Your task to perform on an android device: change text size in settings app Image 0: 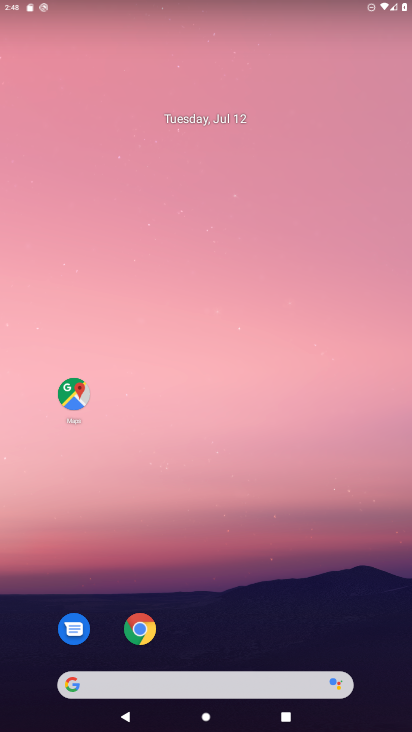
Step 0: drag from (197, 676) to (273, 124)
Your task to perform on an android device: change text size in settings app Image 1: 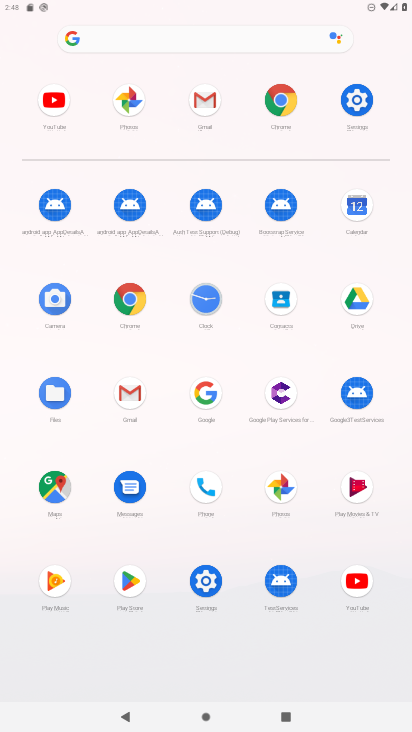
Step 1: click (357, 101)
Your task to perform on an android device: change text size in settings app Image 2: 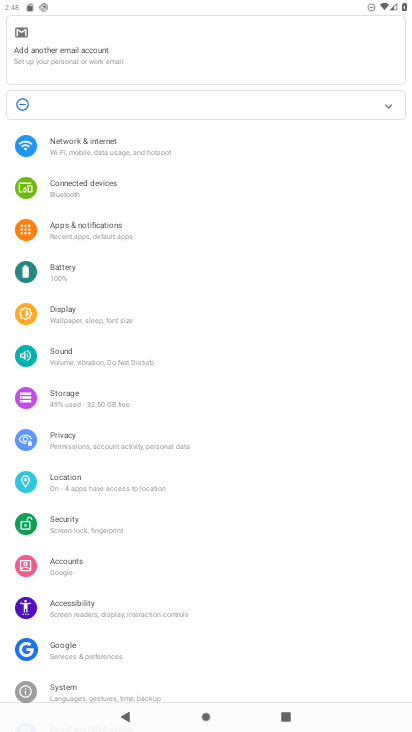
Step 2: drag from (106, 579) to (137, 494)
Your task to perform on an android device: change text size in settings app Image 3: 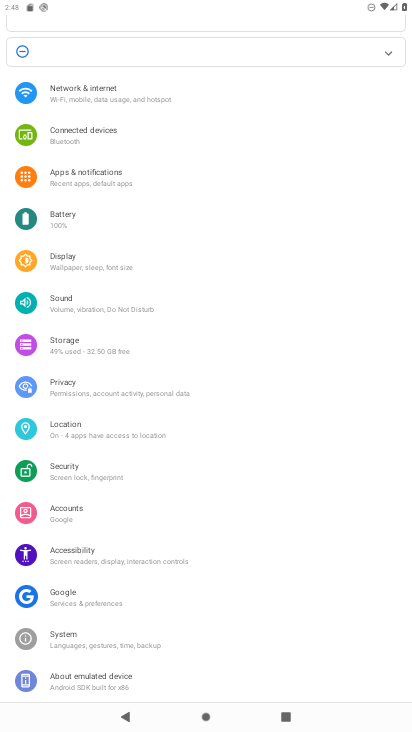
Step 3: click (99, 553)
Your task to perform on an android device: change text size in settings app Image 4: 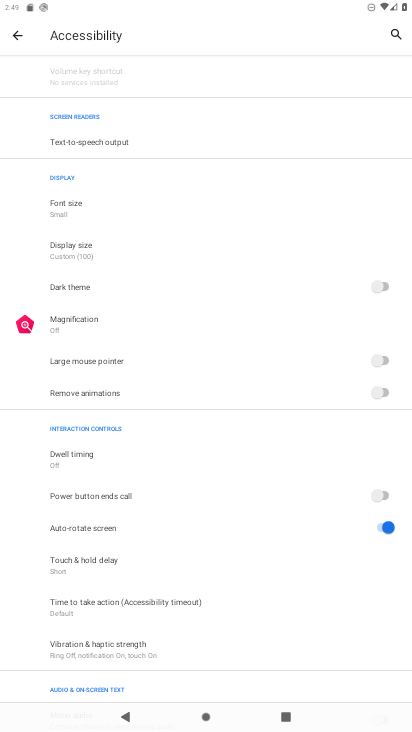
Step 4: click (104, 207)
Your task to perform on an android device: change text size in settings app Image 5: 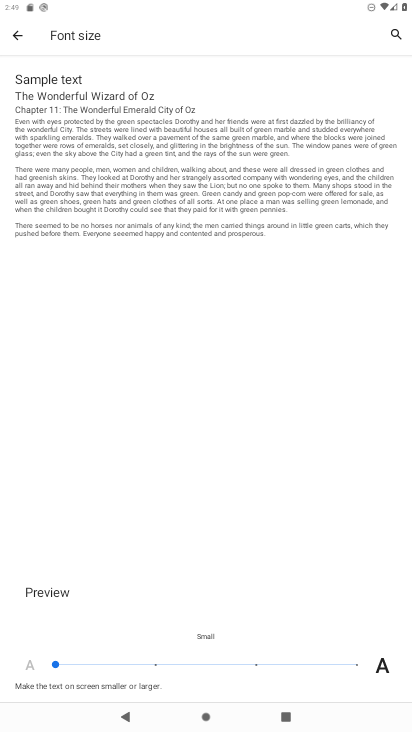
Step 5: click (356, 665)
Your task to perform on an android device: change text size in settings app Image 6: 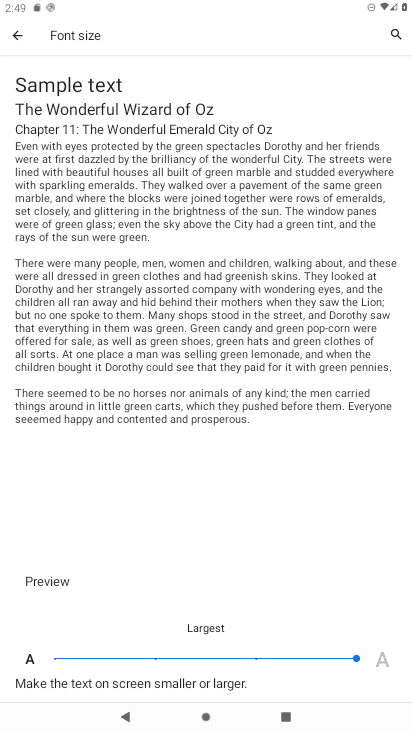
Step 6: task complete